Your task to perform on an android device: Do I have any events tomorrow? Image 0: 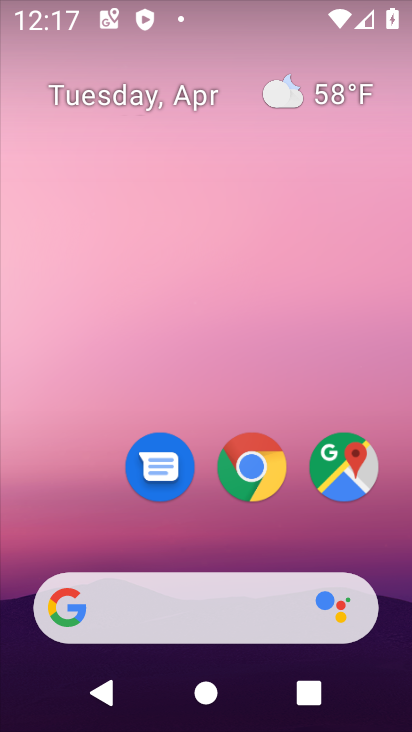
Step 0: click (106, 104)
Your task to perform on an android device: Do I have any events tomorrow? Image 1: 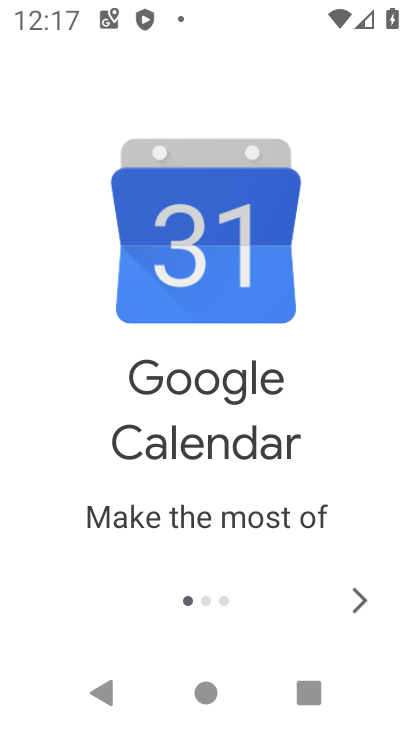
Step 1: click (373, 588)
Your task to perform on an android device: Do I have any events tomorrow? Image 2: 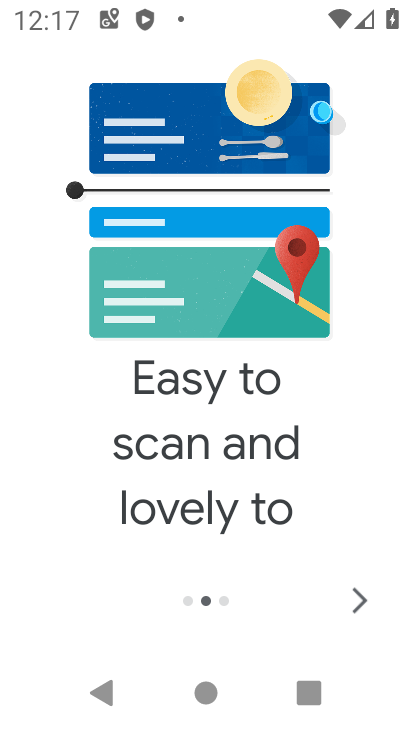
Step 2: click (373, 588)
Your task to perform on an android device: Do I have any events tomorrow? Image 3: 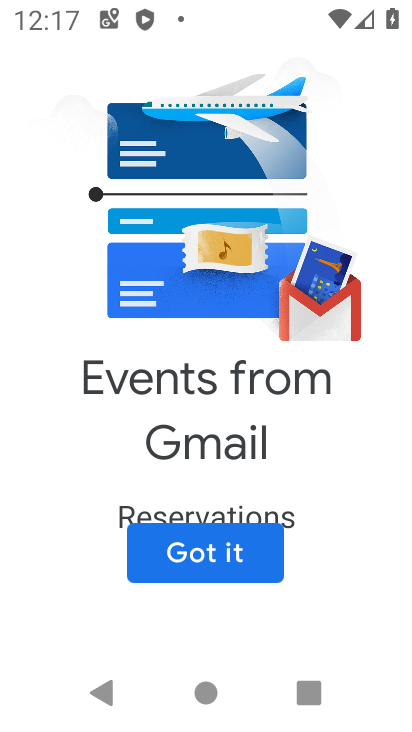
Step 3: click (243, 535)
Your task to perform on an android device: Do I have any events tomorrow? Image 4: 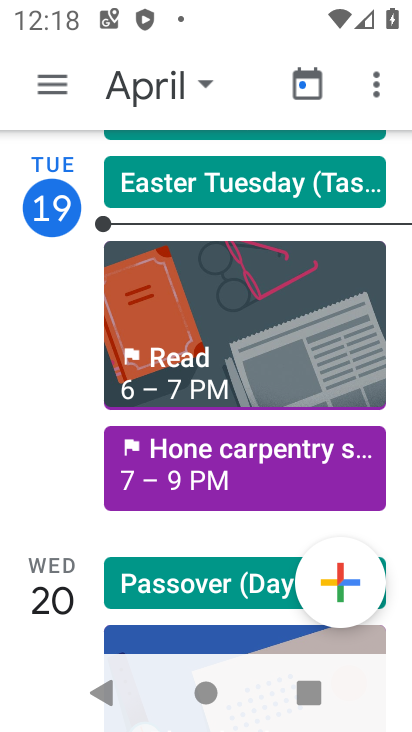
Step 4: click (62, 584)
Your task to perform on an android device: Do I have any events tomorrow? Image 5: 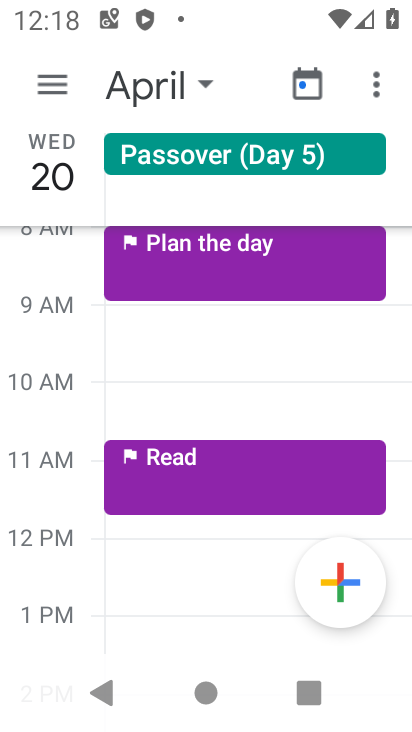
Step 5: click (165, 97)
Your task to perform on an android device: Do I have any events tomorrow? Image 6: 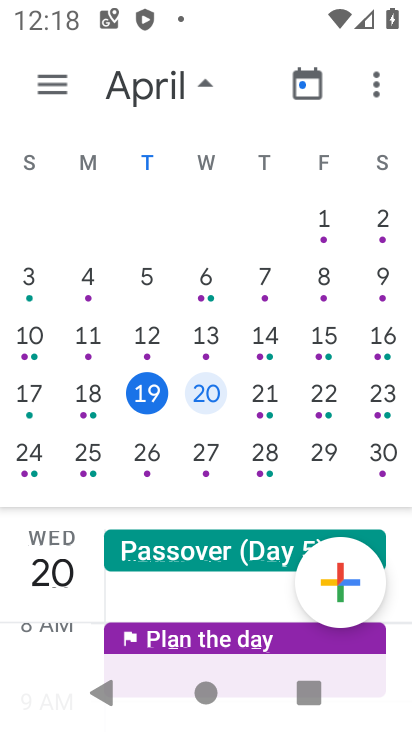
Step 6: click (205, 389)
Your task to perform on an android device: Do I have any events tomorrow? Image 7: 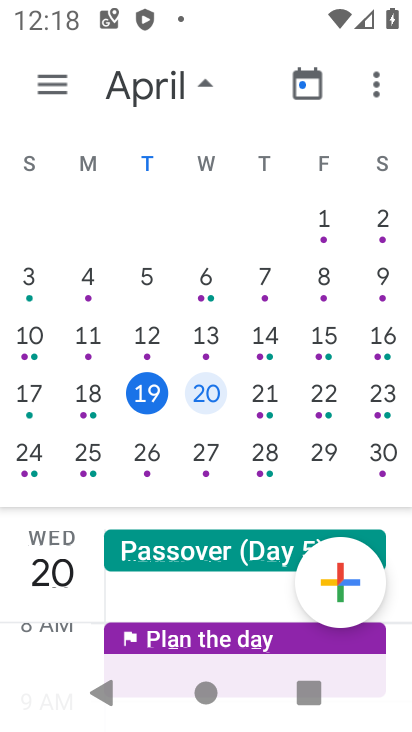
Step 7: task complete